Your task to perform on an android device: show emergency info Image 0: 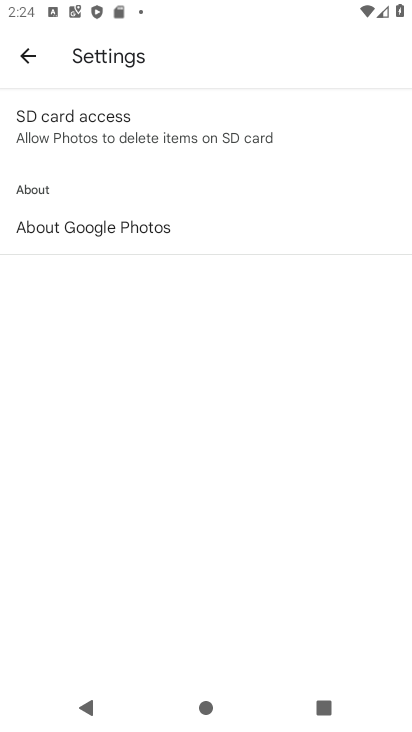
Step 0: press home button
Your task to perform on an android device: show emergency info Image 1: 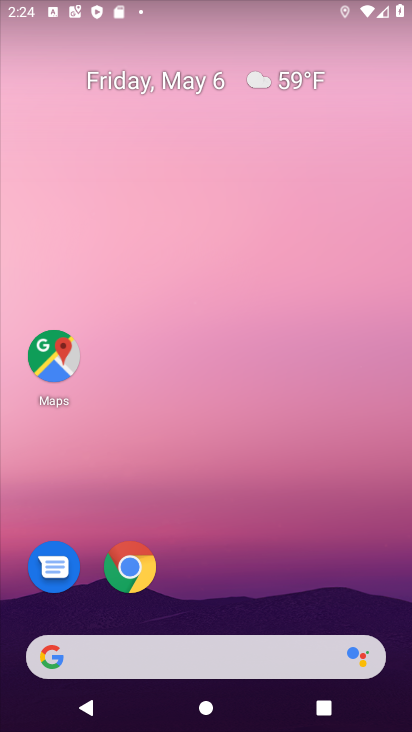
Step 1: drag from (386, 609) to (280, 134)
Your task to perform on an android device: show emergency info Image 2: 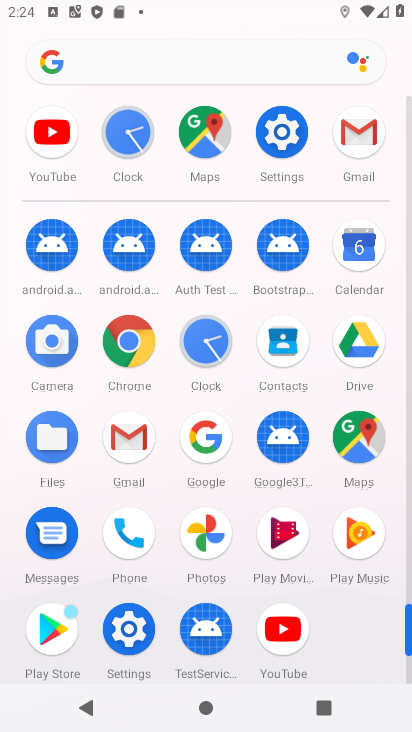
Step 2: click (129, 625)
Your task to perform on an android device: show emergency info Image 3: 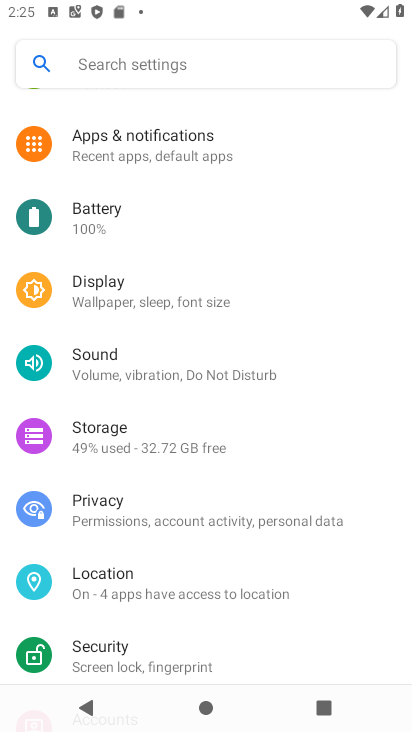
Step 3: drag from (256, 632) to (307, 288)
Your task to perform on an android device: show emergency info Image 4: 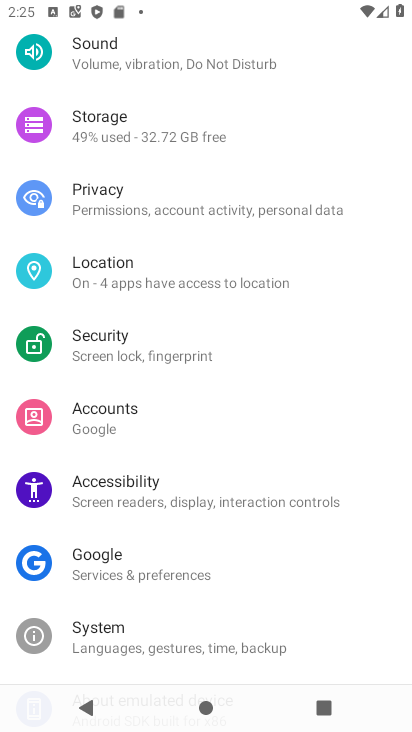
Step 4: drag from (310, 601) to (319, 248)
Your task to perform on an android device: show emergency info Image 5: 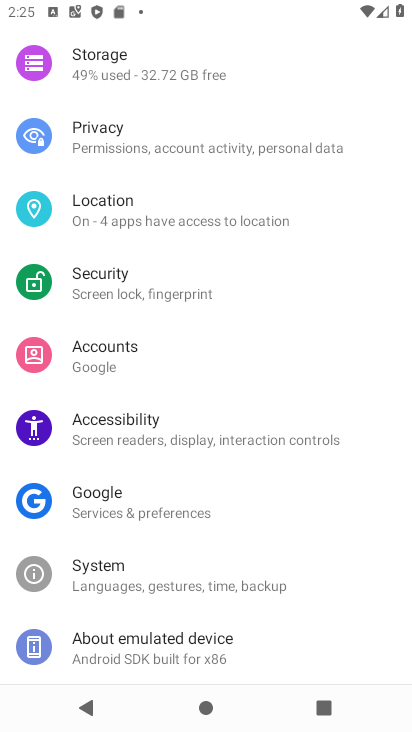
Step 5: click (117, 648)
Your task to perform on an android device: show emergency info Image 6: 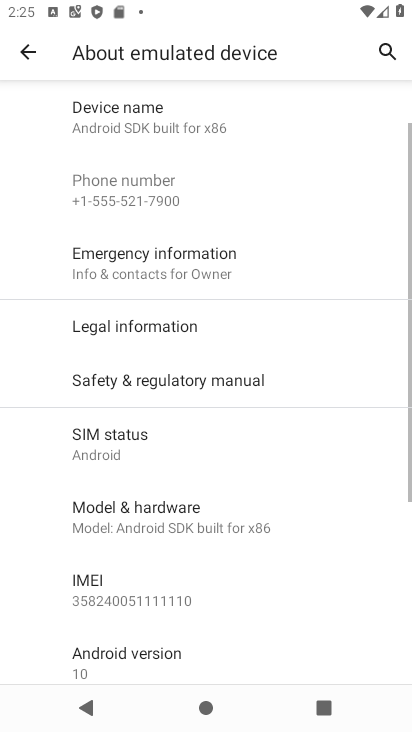
Step 6: click (144, 276)
Your task to perform on an android device: show emergency info Image 7: 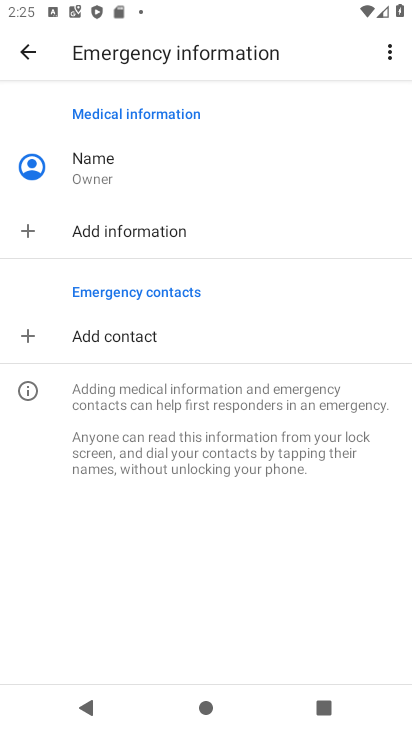
Step 7: task complete